Your task to perform on an android device: toggle notifications settings in the gmail app Image 0: 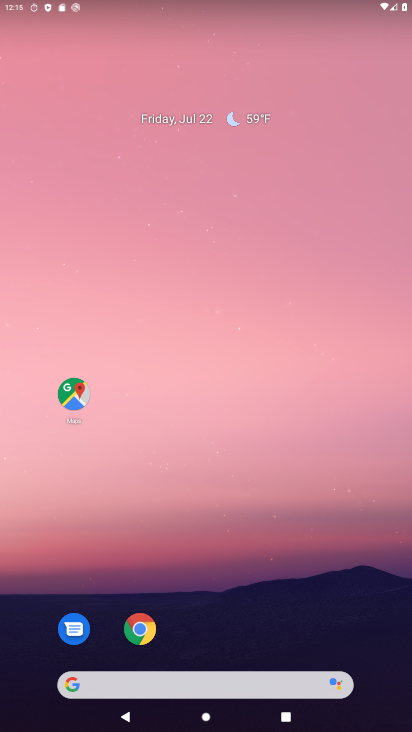
Step 0: drag from (276, 694) to (409, 326)
Your task to perform on an android device: toggle notifications settings in the gmail app Image 1: 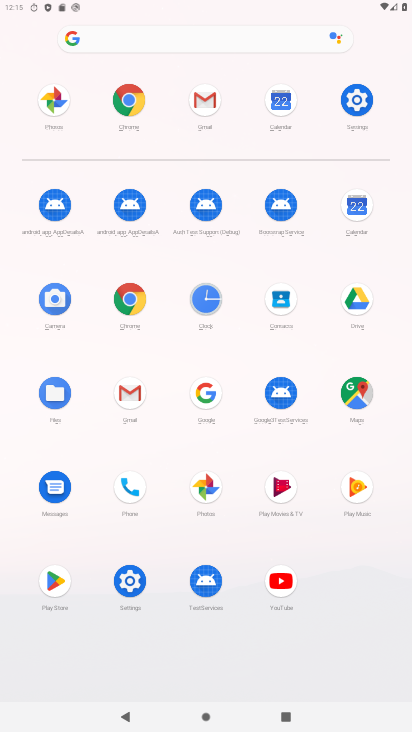
Step 1: click (135, 398)
Your task to perform on an android device: toggle notifications settings in the gmail app Image 2: 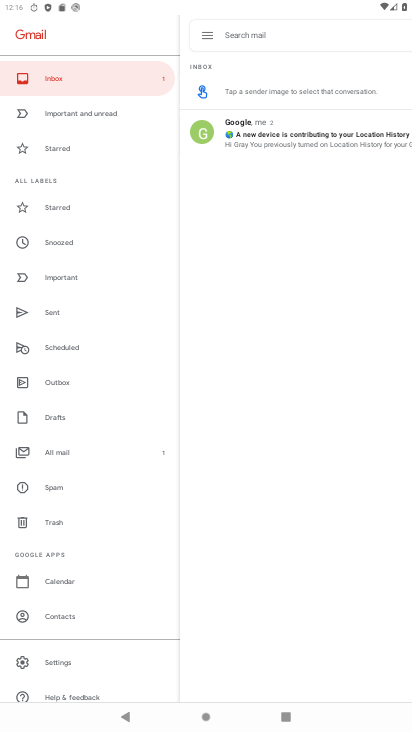
Step 2: click (88, 653)
Your task to perform on an android device: toggle notifications settings in the gmail app Image 3: 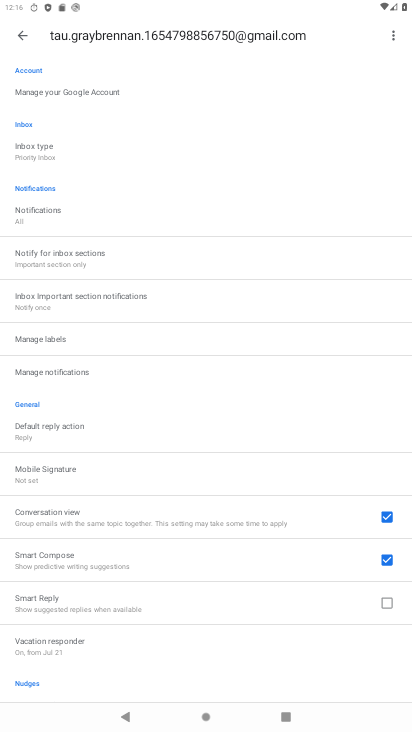
Step 3: click (84, 363)
Your task to perform on an android device: toggle notifications settings in the gmail app Image 4: 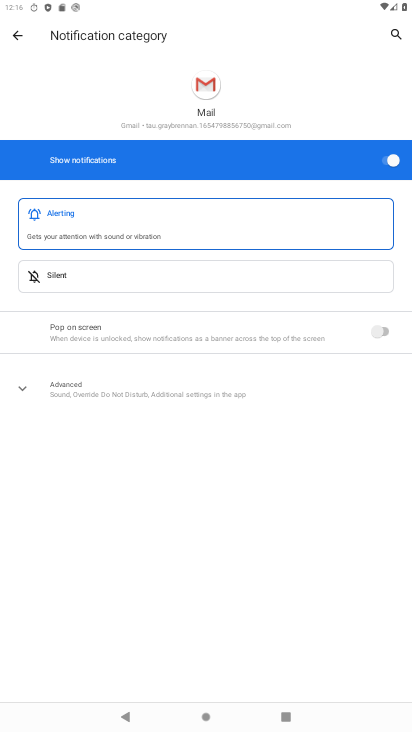
Step 4: click (384, 164)
Your task to perform on an android device: toggle notifications settings in the gmail app Image 5: 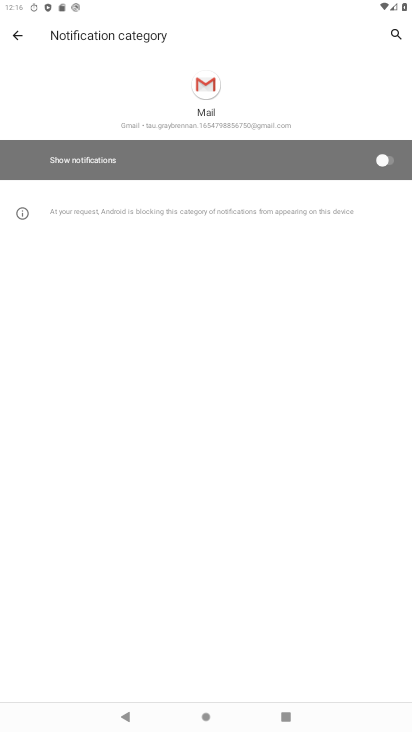
Step 5: task complete